Your task to perform on an android device: empty trash in the gmail app Image 0: 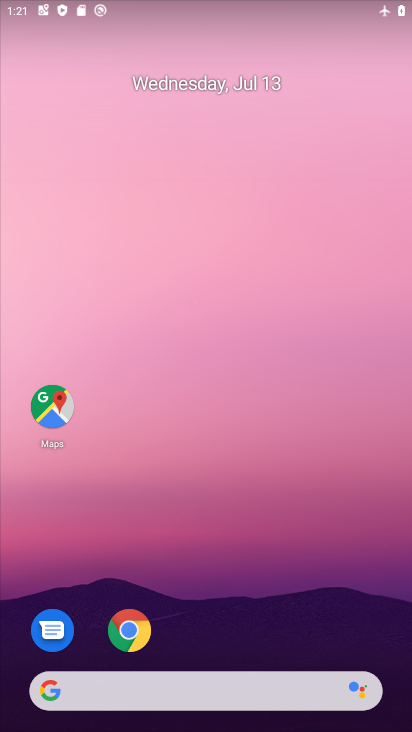
Step 0: drag from (346, 618) to (349, 37)
Your task to perform on an android device: empty trash in the gmail app Image 1: 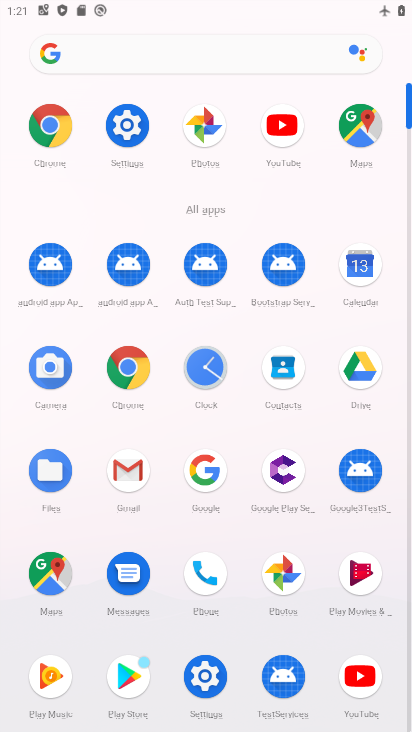
Step 1: click (127, 468)
Your task to perform on an android device: empty trash in the gmail app Image 2: 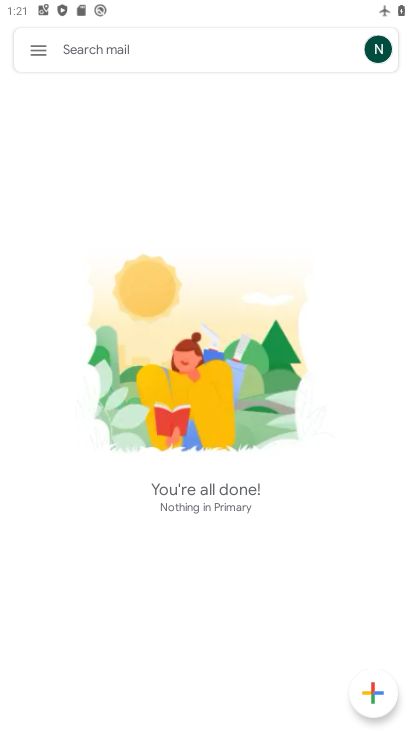
Step 2: click (35, 51)
Your task to perform on an android device: empty trash in the gmail app Image 3: 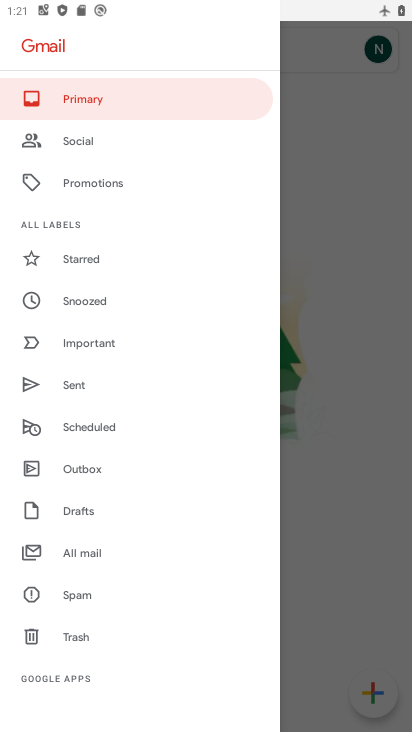
Step 3: drag from (175, 516) to (157, 268)
Your task to perform on an android device: empty trash in the gmail app Image 4: 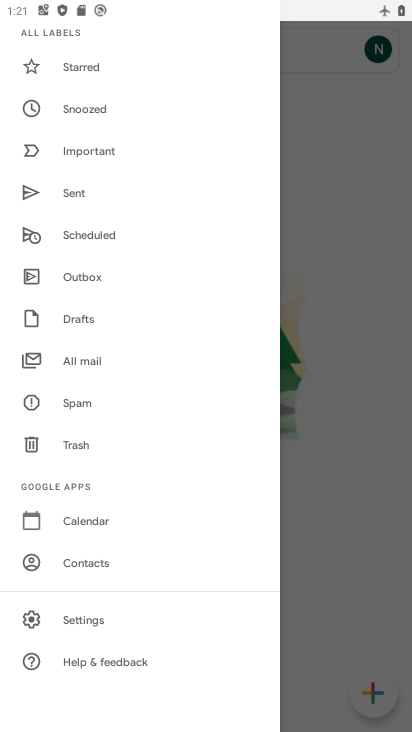
Step 4: click (93, 440)
Your task to perform on an android device: empty trash in the gmail app Image 5: 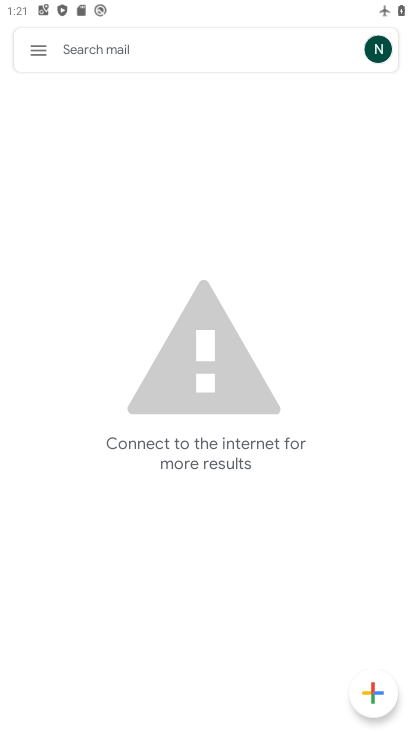
Step 5: task complete